Your task to perform on an android device: turn on priority inbox in the gmail app Image 0: 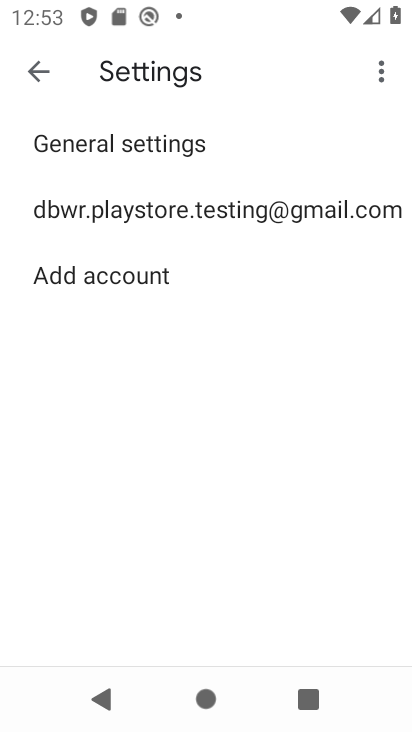
Step 0: press home button
Your task to perform on an android device: turn on priority inbox in the gmail app Image 1: 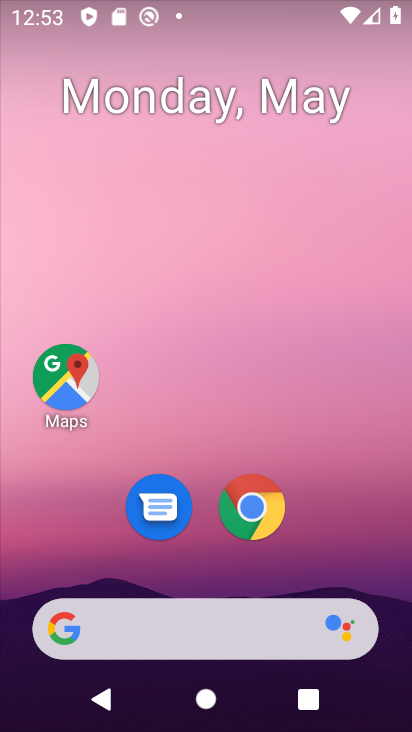
Step 1: drag from (281, 509) to (290, 21)
Your task to perform on an android device: turn on priority inbox in the gmail app Image 2: 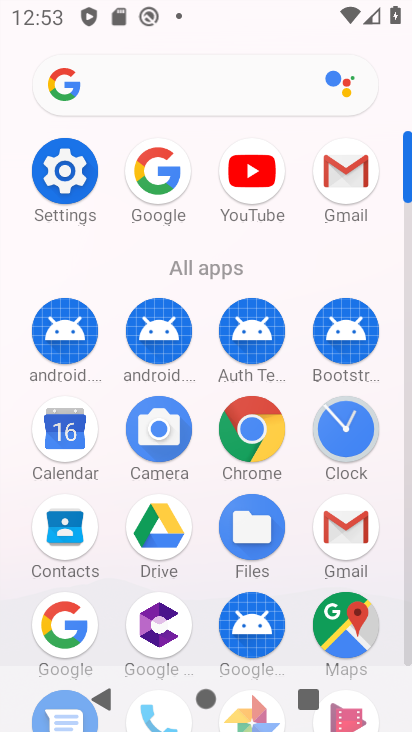
Step 2: click (338, 189)
Your task to perform on an android device: turn on priority inbox in the gmail app Image 3: 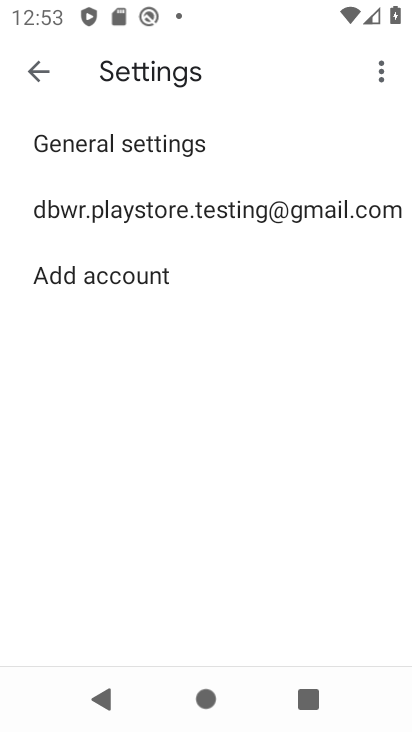
Step 3: click (54, 209)
Your task to perform on an android device: turn on priority inbox in the gmail app Image 4: 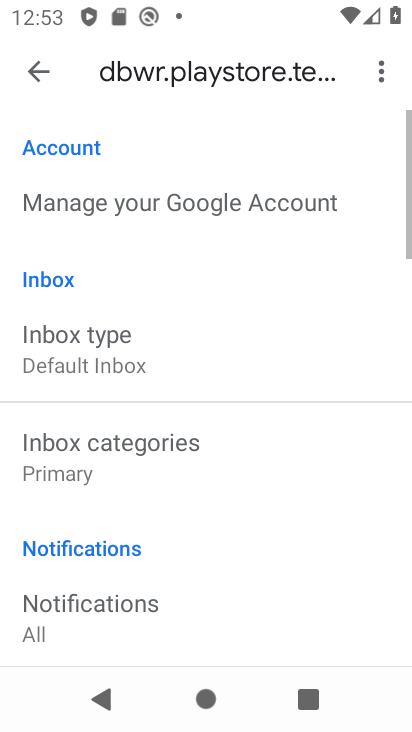
Step 4: drag from (131, 512) to (145, 400)
Your task to perform on an android device: turn on priority inbox in the gmail app Image 5: 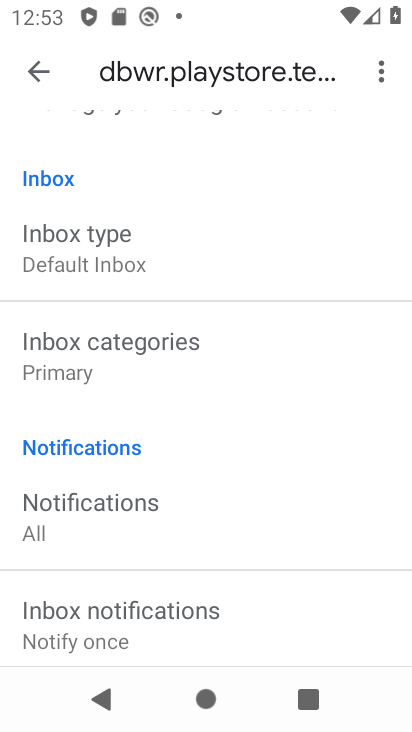
Step 5: click (99, 260)
Your task to perform on an android device: turn on priority inbox in the gmail app Image 6: 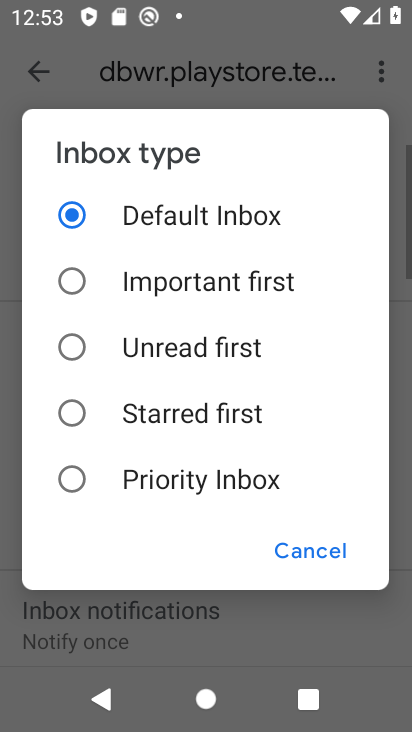
Step 6: click (135, 81)
Your task to perform on an android device: turn on priority inbox in the gmail app Image 7: 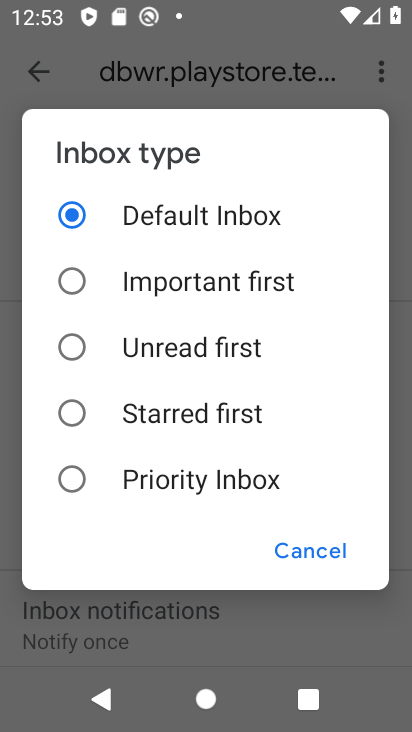
Step 7: task complete